Your task to perform on an android device: Search for custom wallets on etsy. Image 0: 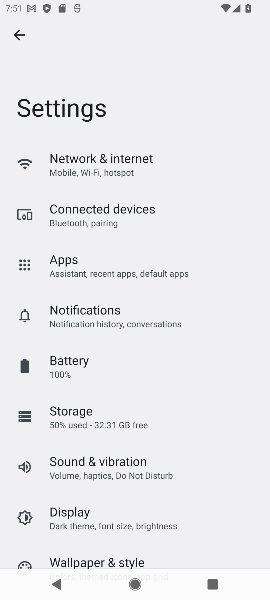
Step 0: press home button
Your task to perform on an android device: Search for custom wallets on etsy. Image 1: 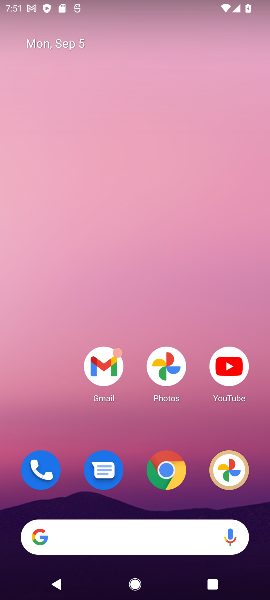
Step 1: drag from (127, 505) to (172, 48)
Your task to perform on an android device: Search for custom wallets on etsy. Image 2: 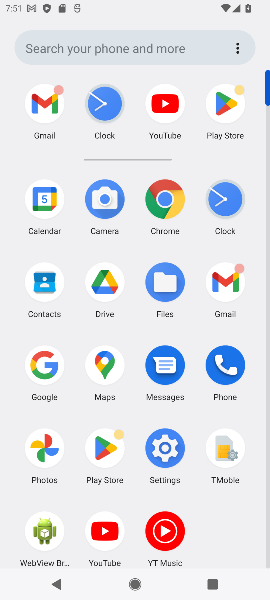
Step 2: click (174, 196)
Your task to perform on an android device: Search for custom wallets on etsy. Image 3: 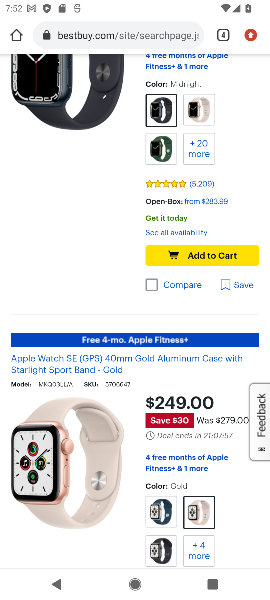
Step 3: click (126, 35)
Your task to perform on an android device: Search for custom wallets on etsy. Image 4: 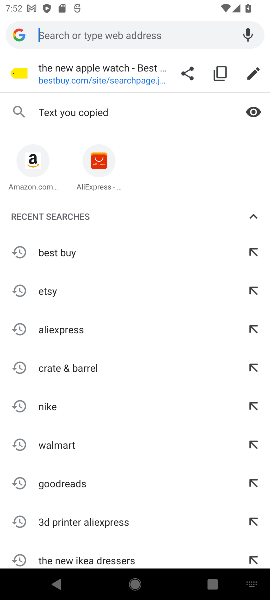
Step 4: type "etsy"
Your task to perform on an android device: Search for custom wallets on etsy. Image 5: 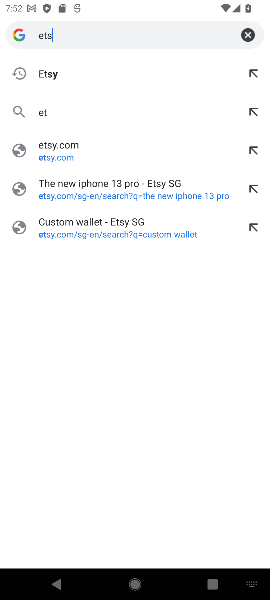
Step 5: type ""
Your task to perform on an android device: Search for custom wallets on etsy. Image 6: 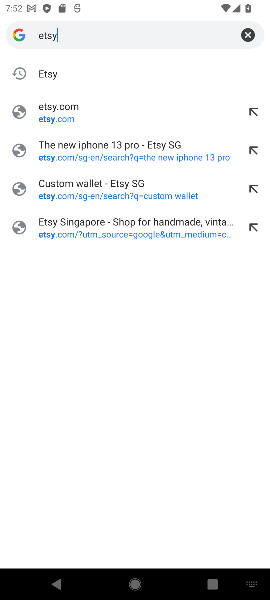
Step 6: click (38, 85)
Your task to perform on an android device: Search for custom wallets on etsy. Image 7: 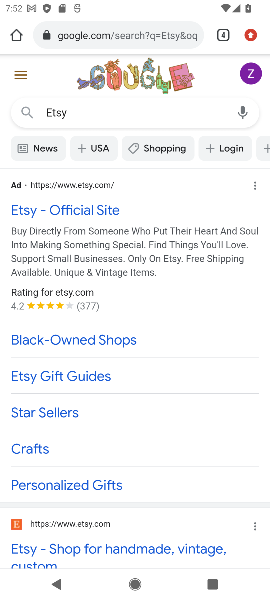
Step 7: click (39, 213)
Your task to perform on an android device: Search for custom wallets on etsy. Image 8: 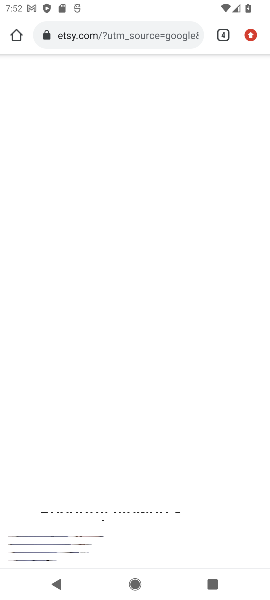
Step 8: click (114, 147)
Your task to perform on an android device: Search for custom wallets on etsy. Image 9: 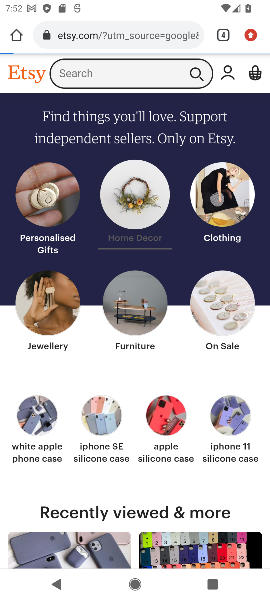
Step 9: click (119, 75)
Your task to perform on an android device: Search for custom wallets on etsy. Image 10: 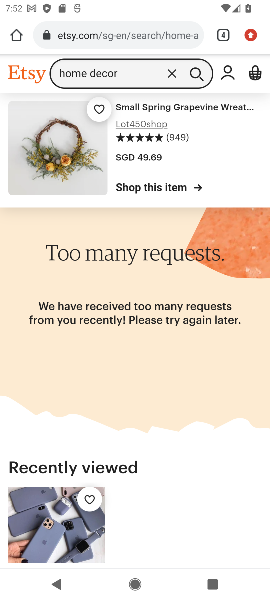
Step 10: click (172, 74)
Your task to perform on an android device: Search for custom wallets on etsy. Image 11: 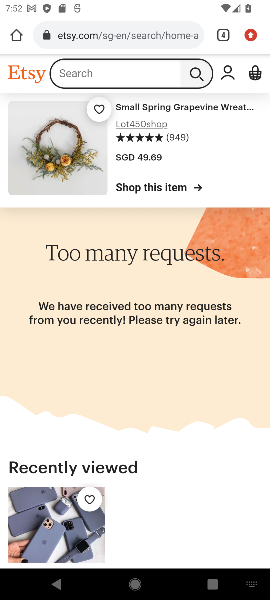
Step 11: type " custom wallets "
Your task to perform on an android device: Search for custom wallets on etsy. Image 12: 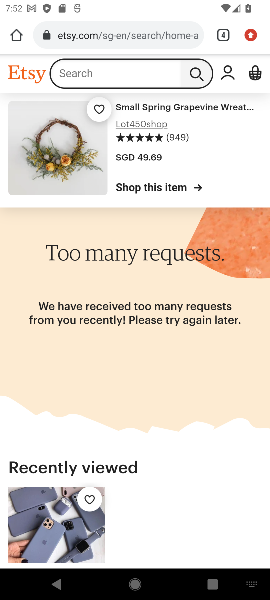
Step 12: type ""
Your task to perform on an android device: Search for custom wallets on etsy. Image 13: 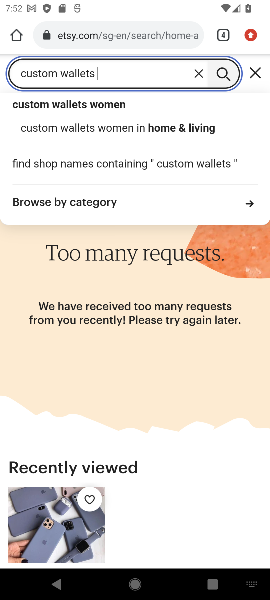
Step 13: drag from (110, 442) to (143, 205)
Your task to perform on an android device: Search for custom wallets on etsy. Image 14: 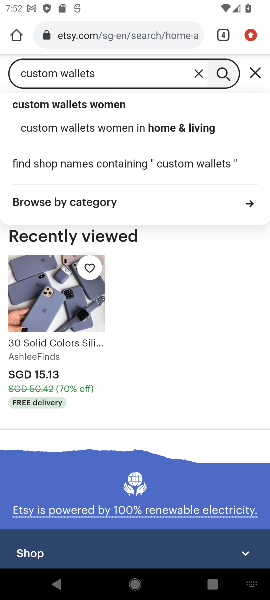
Step 14: click (229, 75)
Your task to perform on an android device: Search for custom wallets on etsy. Image 15: 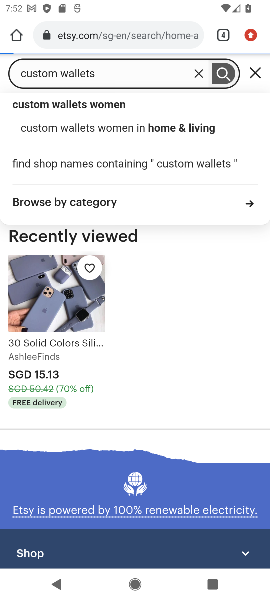
Step 15: click (223, 73)
Your task to perform on an android device: Search for custom wallets on etsy. Image 16: 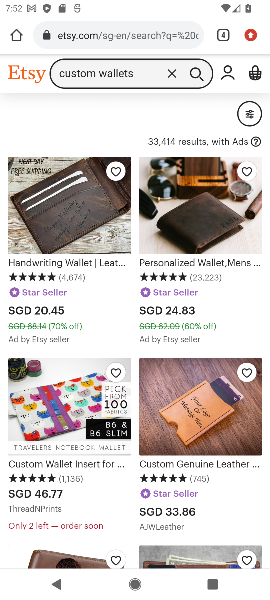
Step 16: task complete